Your task to perform on an android device: toggle show notifications on the lock screen Image 0: 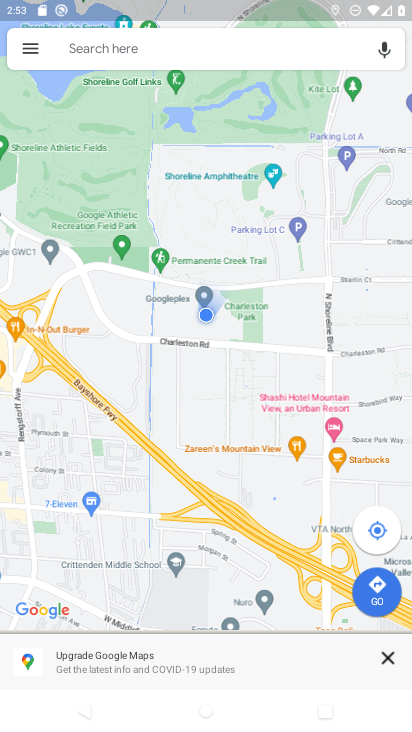
Step 0: press home button
Your task to perform on an android device: toggle show notifications on the lock screen Image 1: 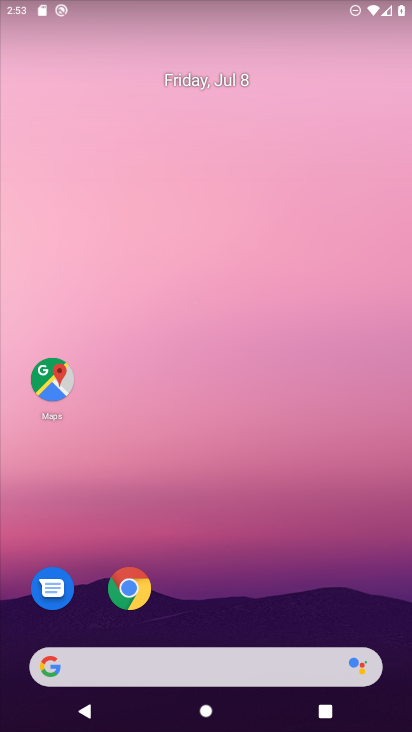
Step 1: drag from (241, 200) to (230, 2)
Your task to perform on an android device: toggle show notifications on the lock screen Image 2: 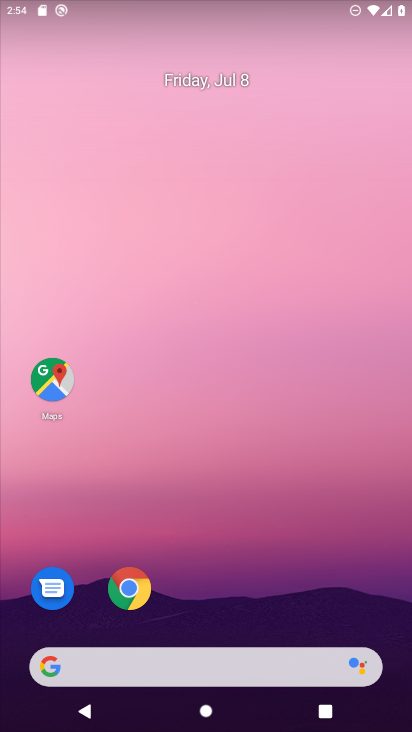
Step 2: drag from (197, 421) to (256, 201)
Your task to perform on an android device: toggle show notifications on the lock screen Image 3: 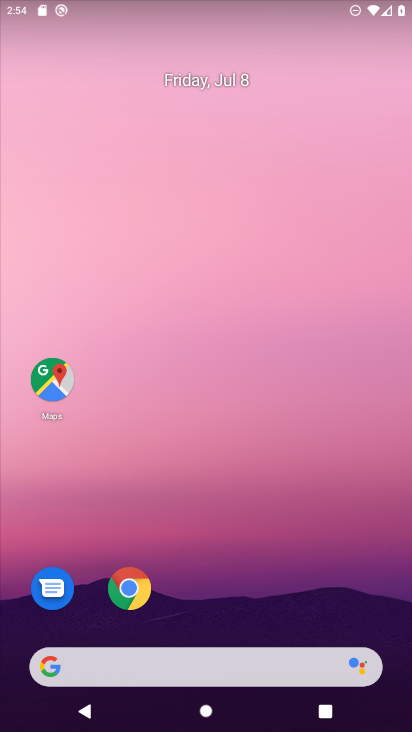
Step 3: drag from (207, 635) to (176, 214)
Your task to perform on an android device: toggle show notifications on the lock screen Image 4: 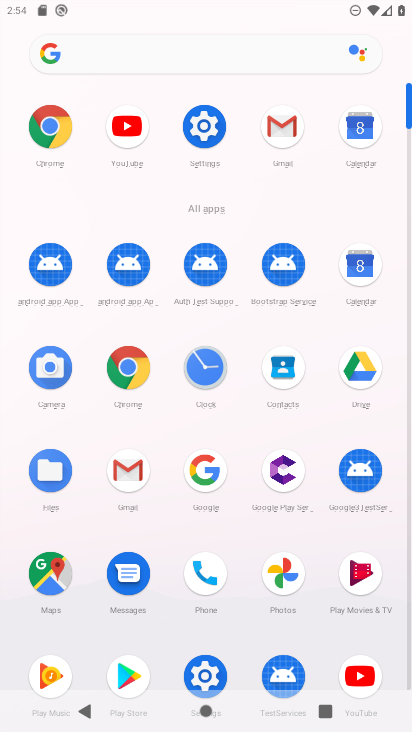
Step 4: click (199, 136)
Your task to perform on an android device: toggle show notifications on the lock screen Image 5: 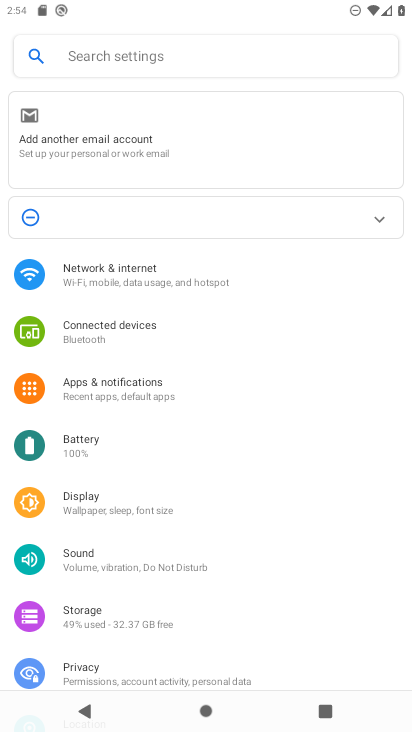
Step 5: drag from (135, 238) to (131, 380)
Your task to perform on an android device: toggle show notifications on the lock screen Image 6: 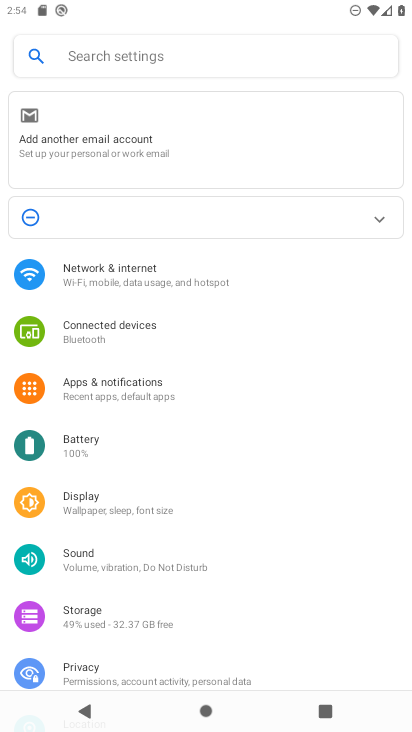
Step 6: click (131, 380)
Your task to perform on an android device: toggle show notifications on the lock screen Image 7: 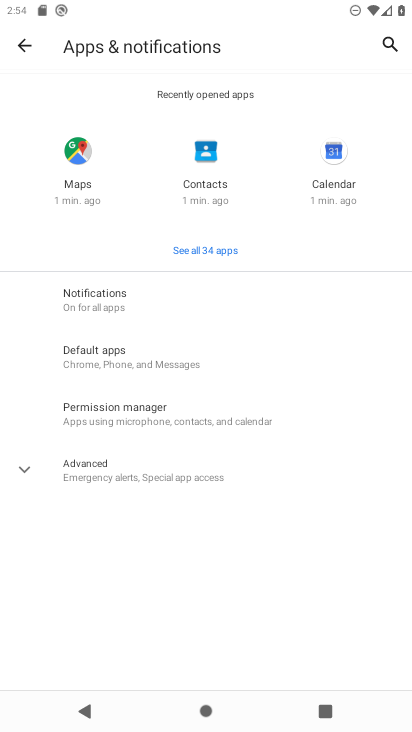
Step 7: click (84, 308)
Your task to perform on an android device: toggle show notifications on the lock screen Image 8: 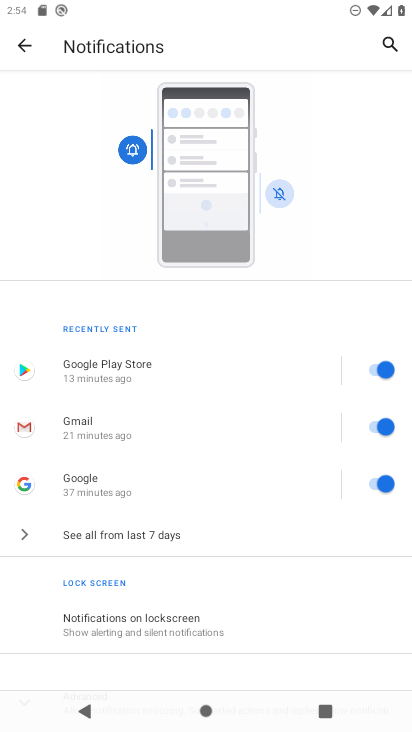
Step 8: click (163, 641)
Your task to perform on an android device: toggle show notifications on the lock screen Image 9: 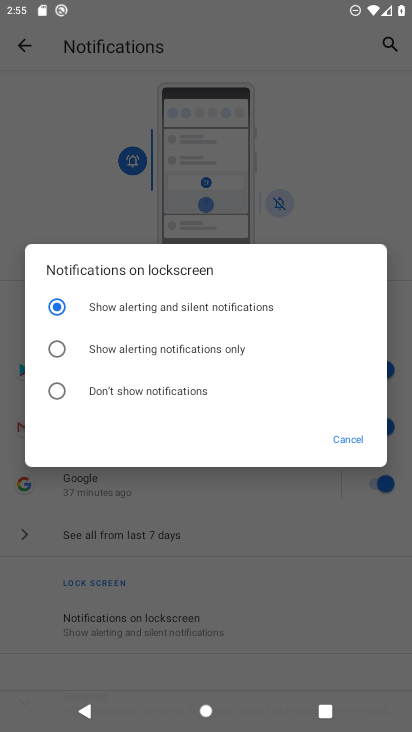
Step 9: click (61, 399)
Your task to perform on an android device: toggle show notifications on the lock screen Image 10: 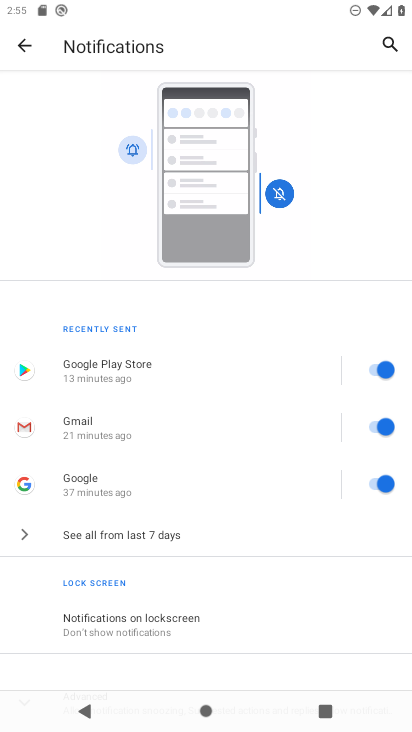
Step 10: task complete